Your task to perform on an android device: Open calendar and show me the fourth week of next month Image 0: 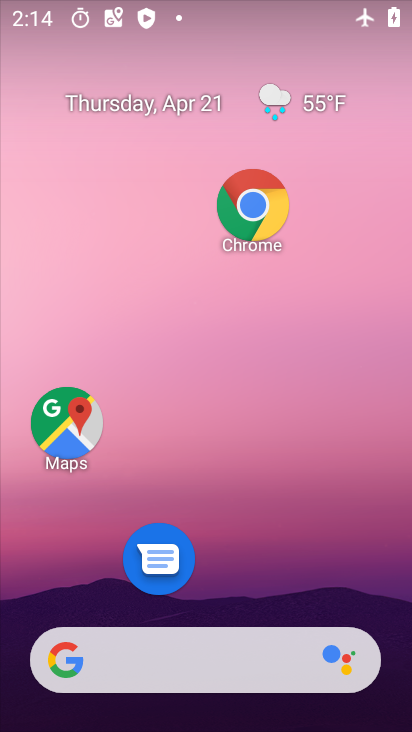
Step 0: drag from (208, 616) to (163, 21)
Your task to perform on an android device: Open calendar and show me the fourth week of next month Image 1: 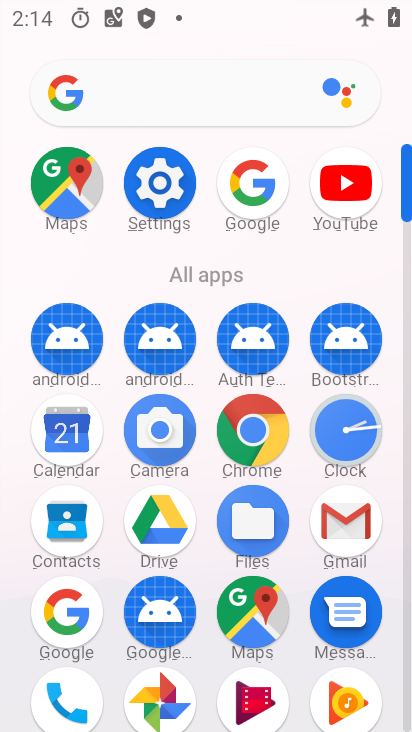
Step 1: click (59, 452)
Your task to perform on an android device: Open calendar and show me the fourth week of next month Image 2: 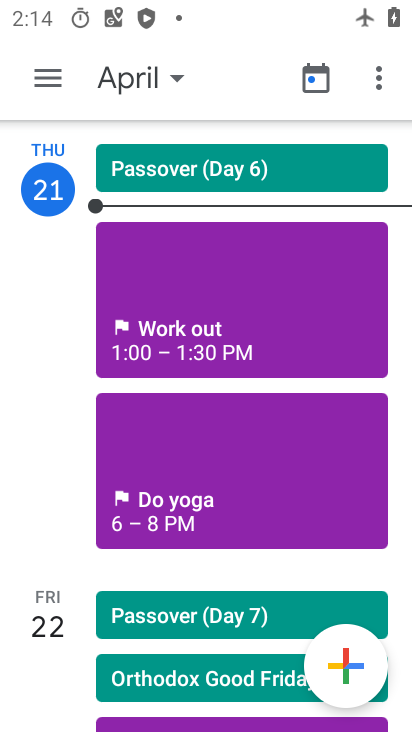
Step 2: click (55, 76)
Your task to perform on an android device: Open calendar and show me the fourth week of next month Image 3: 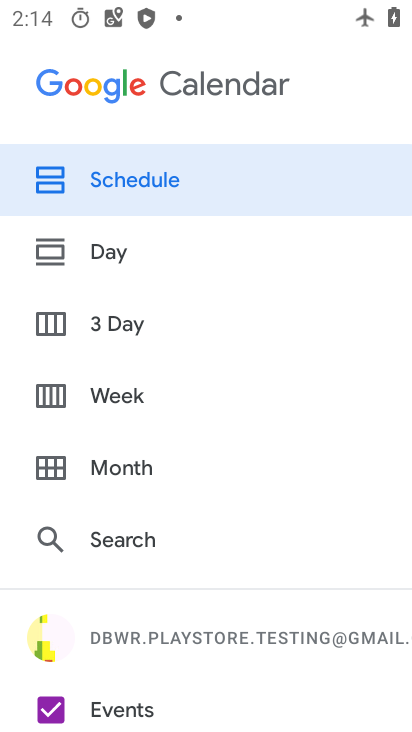
Step 3: click (114, 388)
Your task to perform on an android device: Open calendar and show me the fourth week of next month Image 4: 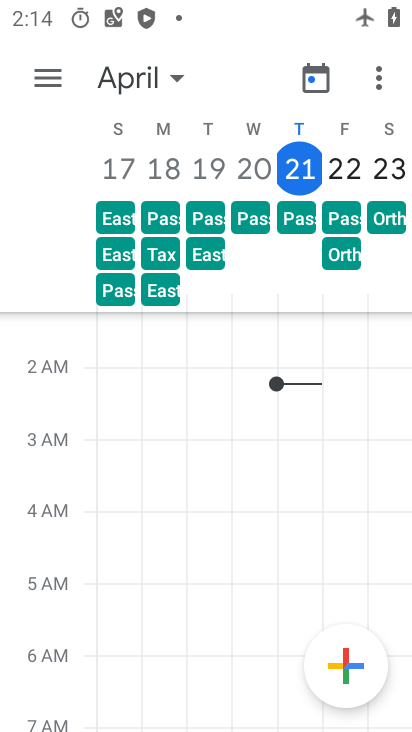
Step 4: task complete